Your task to perform on an android device: Turn on the flashlight Image 0: 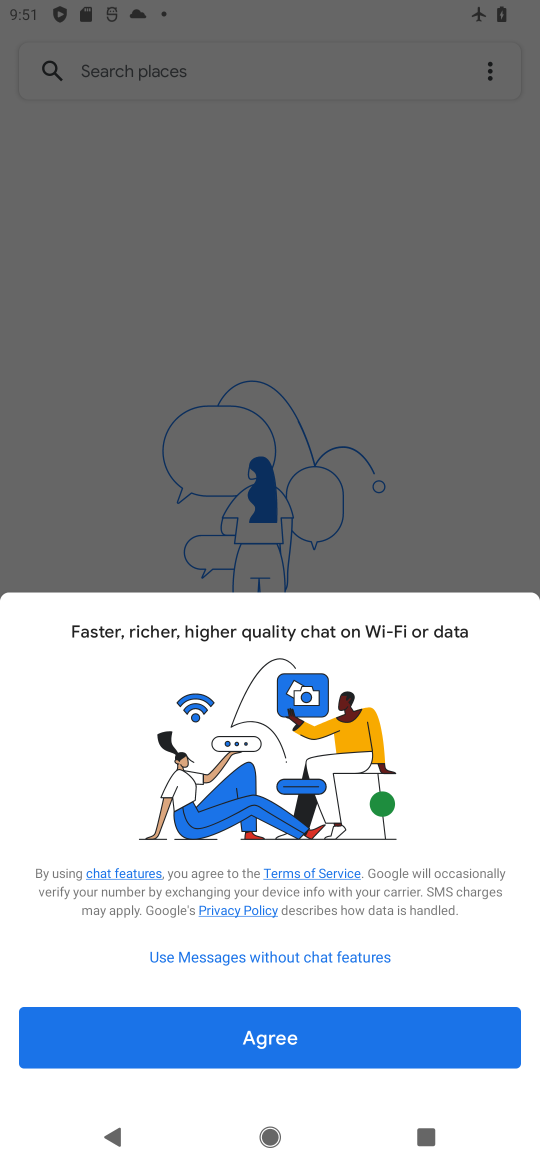
Step 0: drag from (393, 17) to (466, 782)
Your task to perform on an android device: Turn on the flashlight Image 1: 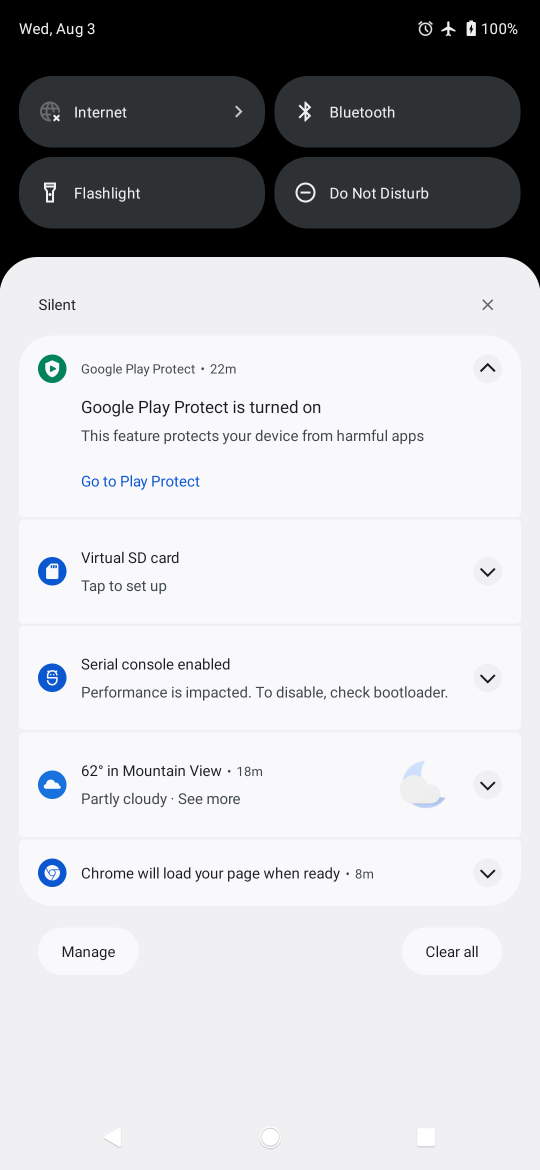
Step 1: click (150, 201)
Your task to perform on an android device: Turn on the flashlight Image 2: 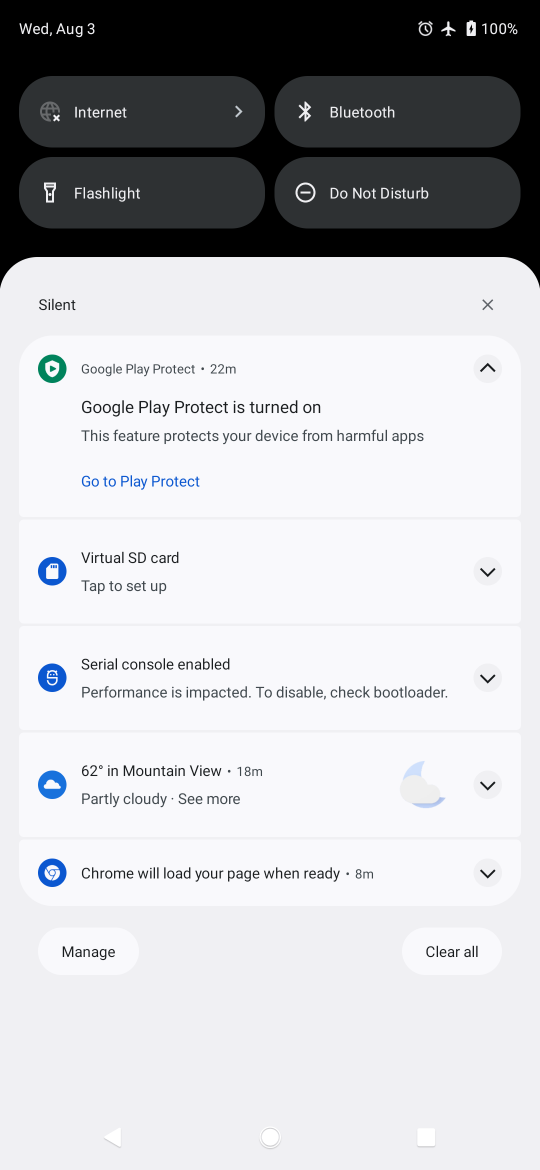
Step 2: task complete